Your task to perform on an android device: Go to notification settings Image 0: 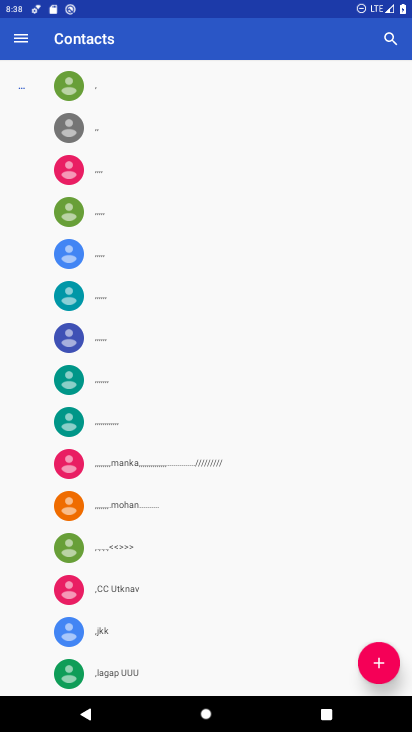
Step 0: press home button
Your task to perform on an android device: Go to notification settings Image 1: 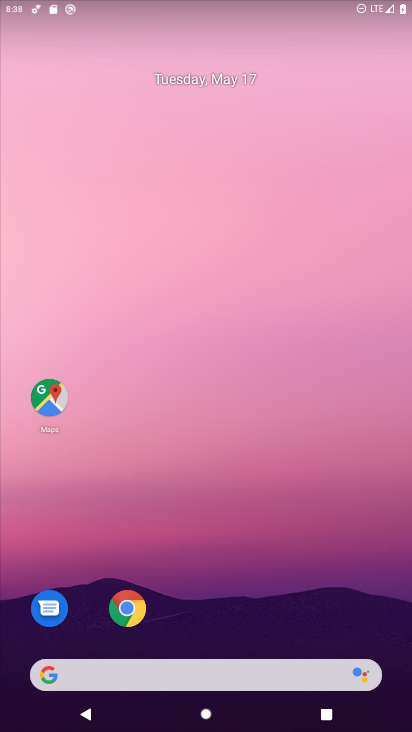
Step 1: drag from (223, 628) to (288, 22)
Your task to perform on an android device: Go to notification settings Image 2: 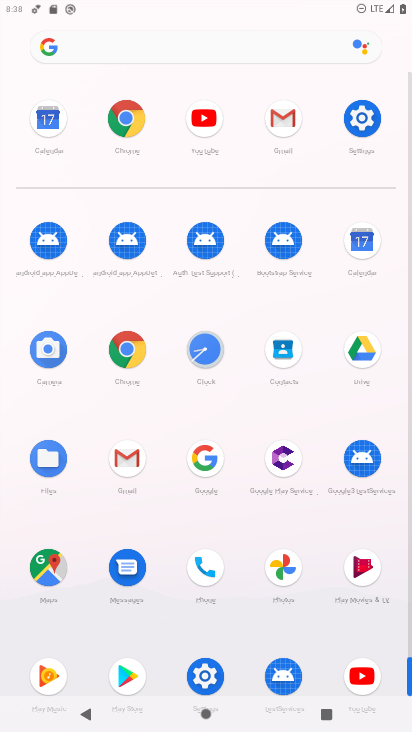
Step 2: click (363, 125)
Your task to perform on an android device: Go to notification settings Image 3: 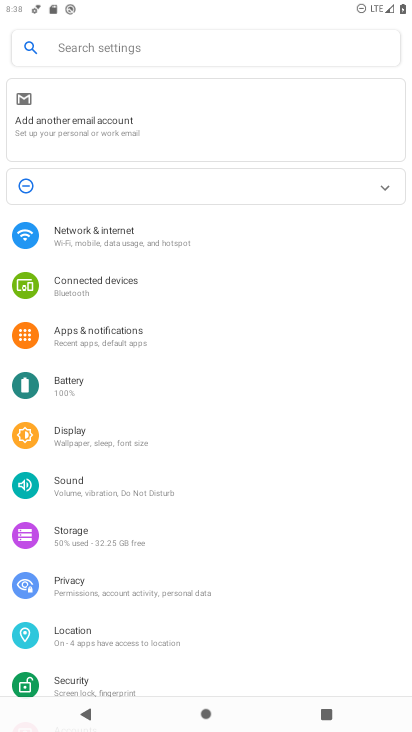
Step 3: click (134, 333)
Your task to perform on an android device: Go to notification settings Image 4: 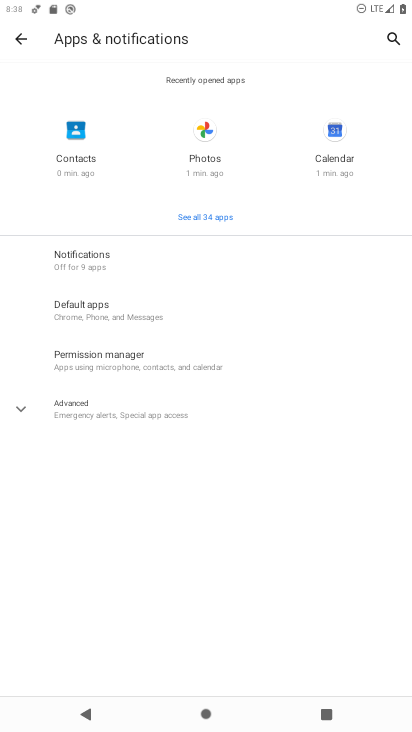
Step 4: click (121, 261)
Your task to perform on an android device: Go to notification settings Image 5: 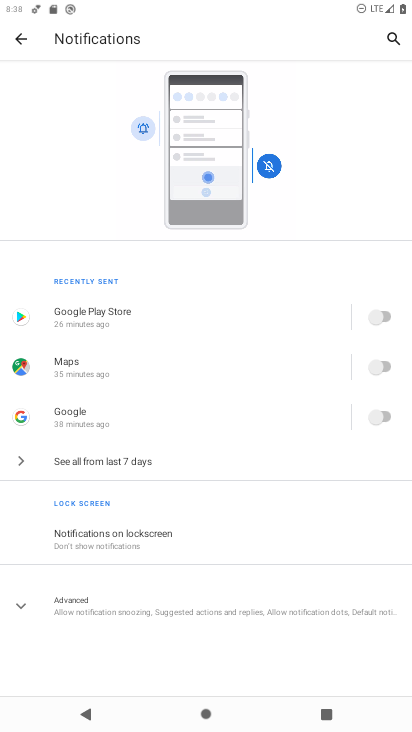
Step 5: task complete